Your task to perform on an android device: What's the weather going to be tomorrow? Image 0: 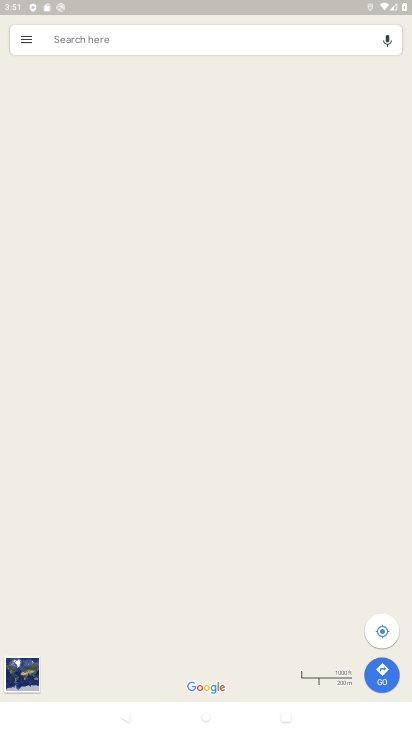
Step 0: press home button
Your task to perform on an android device: What's the weather going to be tomorrow? Image 1: 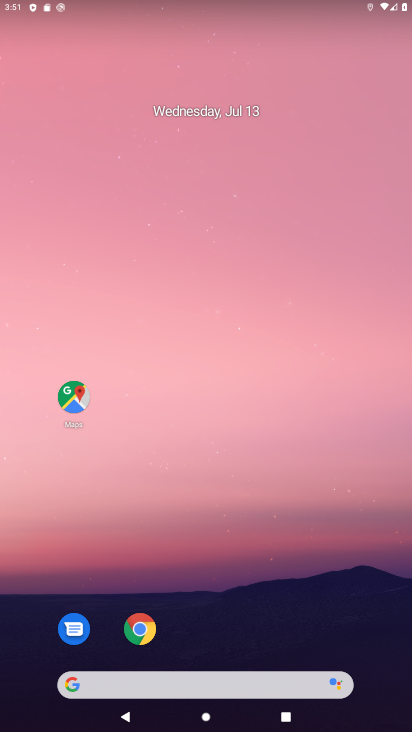
Step 1: click (182, 681)
Your task to perform on an android device: What's the weather going to be tomorrow? Image 2: 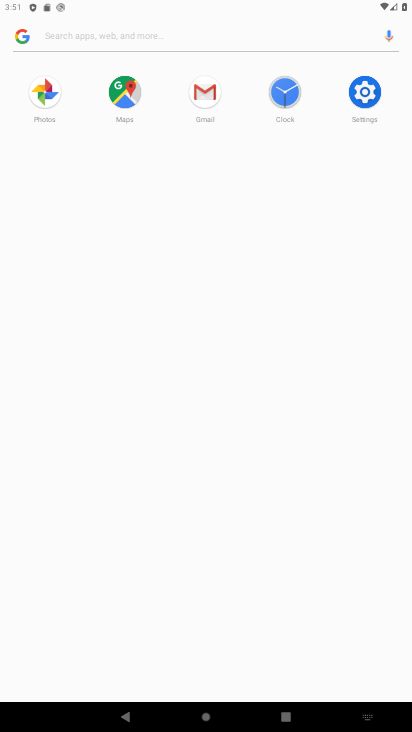
Step 2: type "weather for tomorrow"
Your task to perform on an android device: What's the weather going to be tomorrow? Image 3: 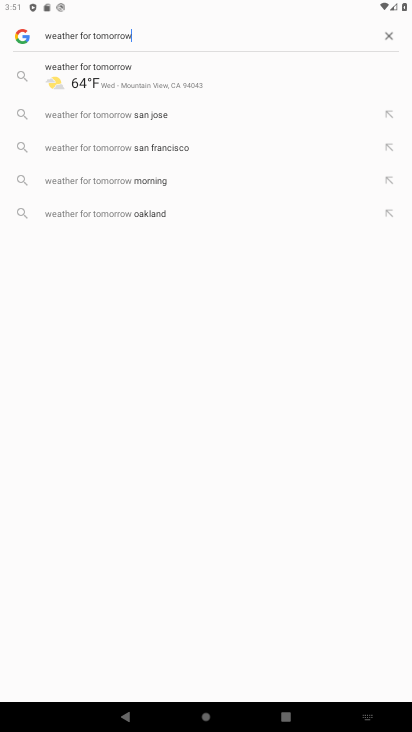
Step 3: click (210, 82)
Your task to perform on an android device: What's the weather going to be tomorrow? Image 4: 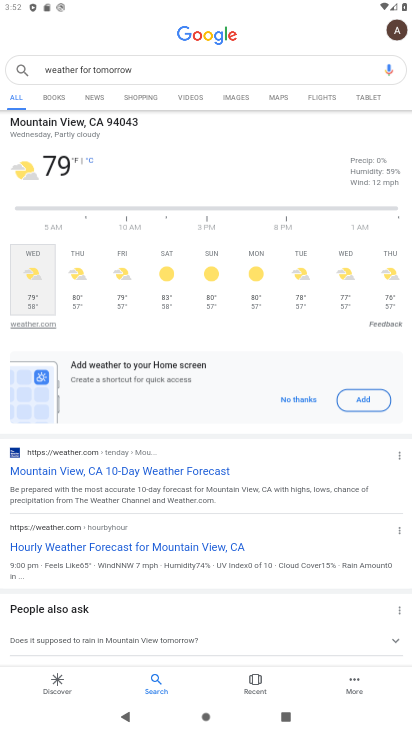
Step 4: task complete